Your task to perform on an android device: View the shopping cart on bestbuy.com. Image 0: 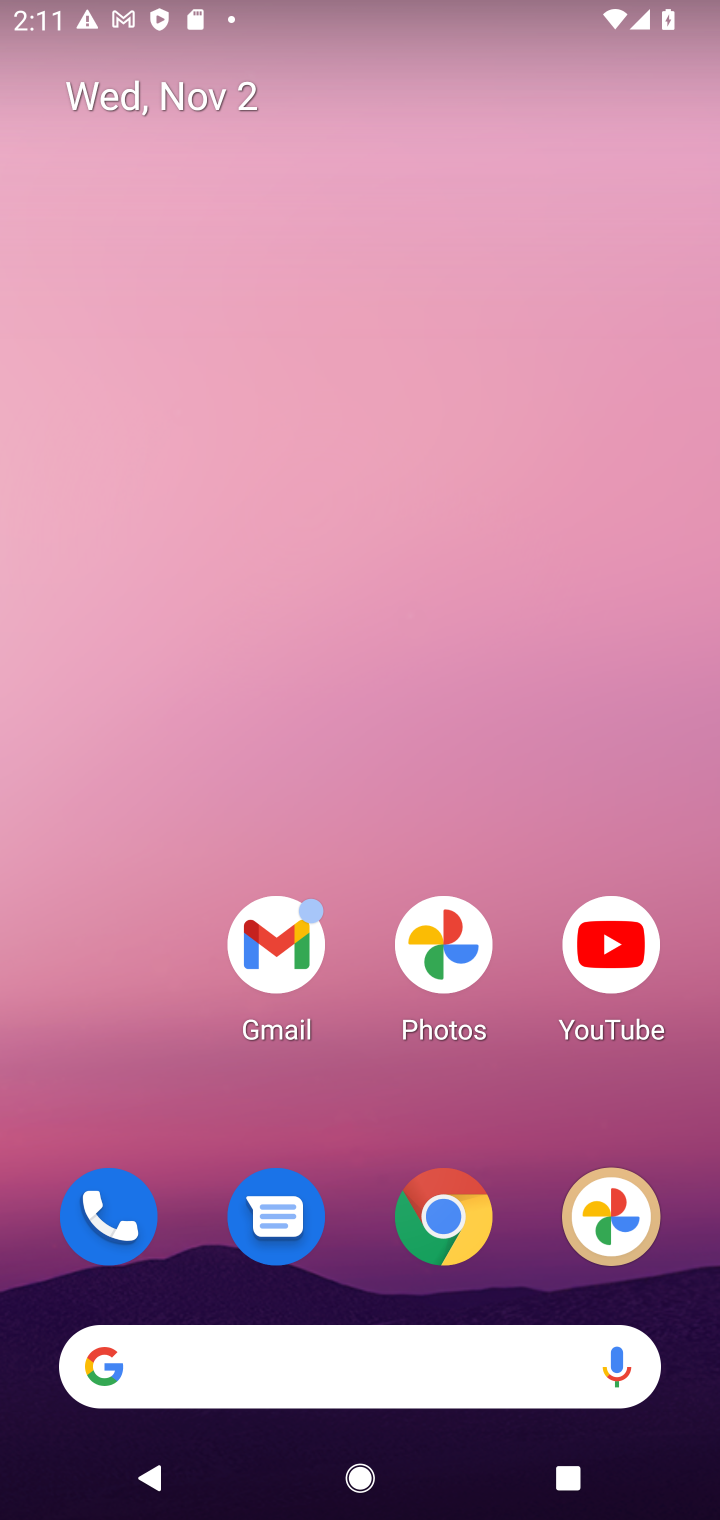
Step 0: click (444, 1211)
Your task to perform on an android device: View the shopping cart on bestbuy.com. Image 1: 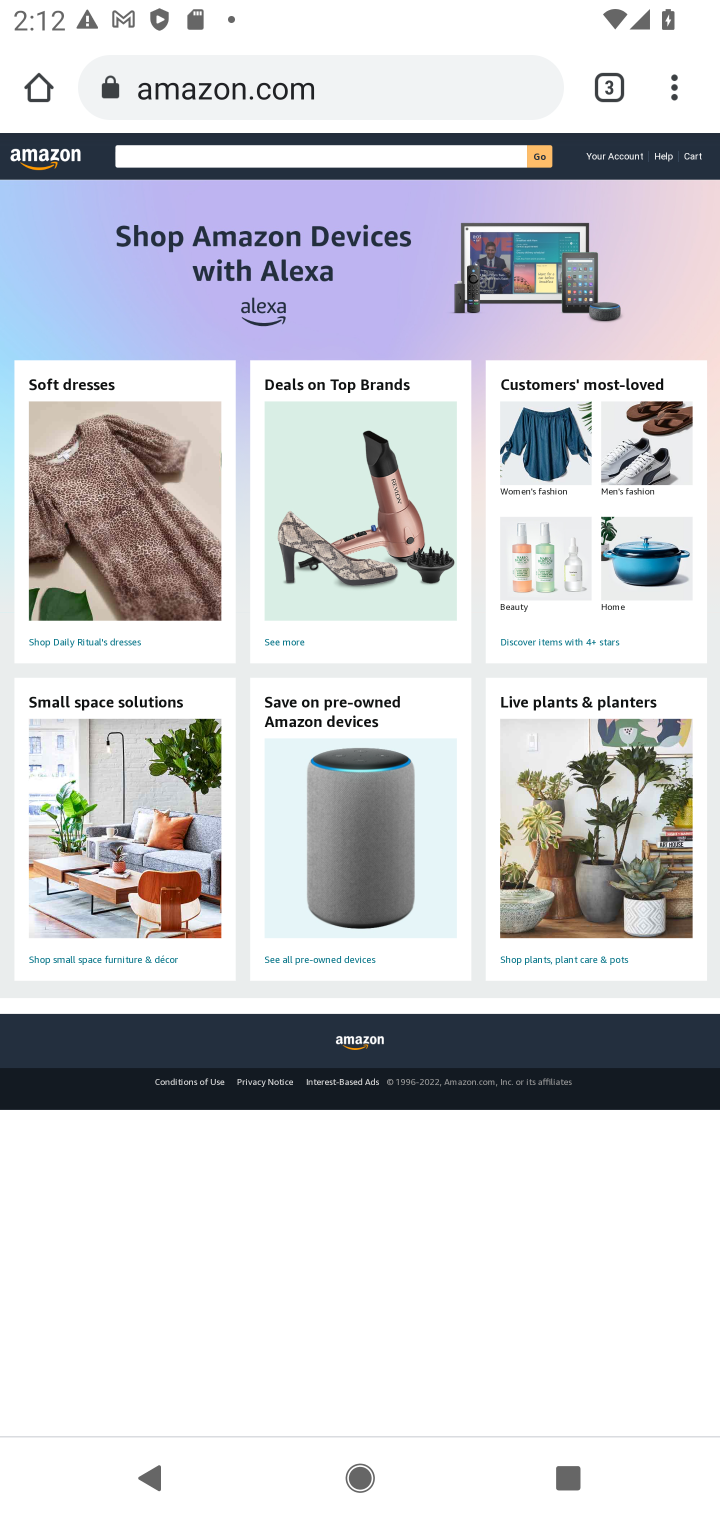
Step 1: click (608, 101)
Your task to perform on an android device: View the shopping cart on bestbuy.com. Image 2: 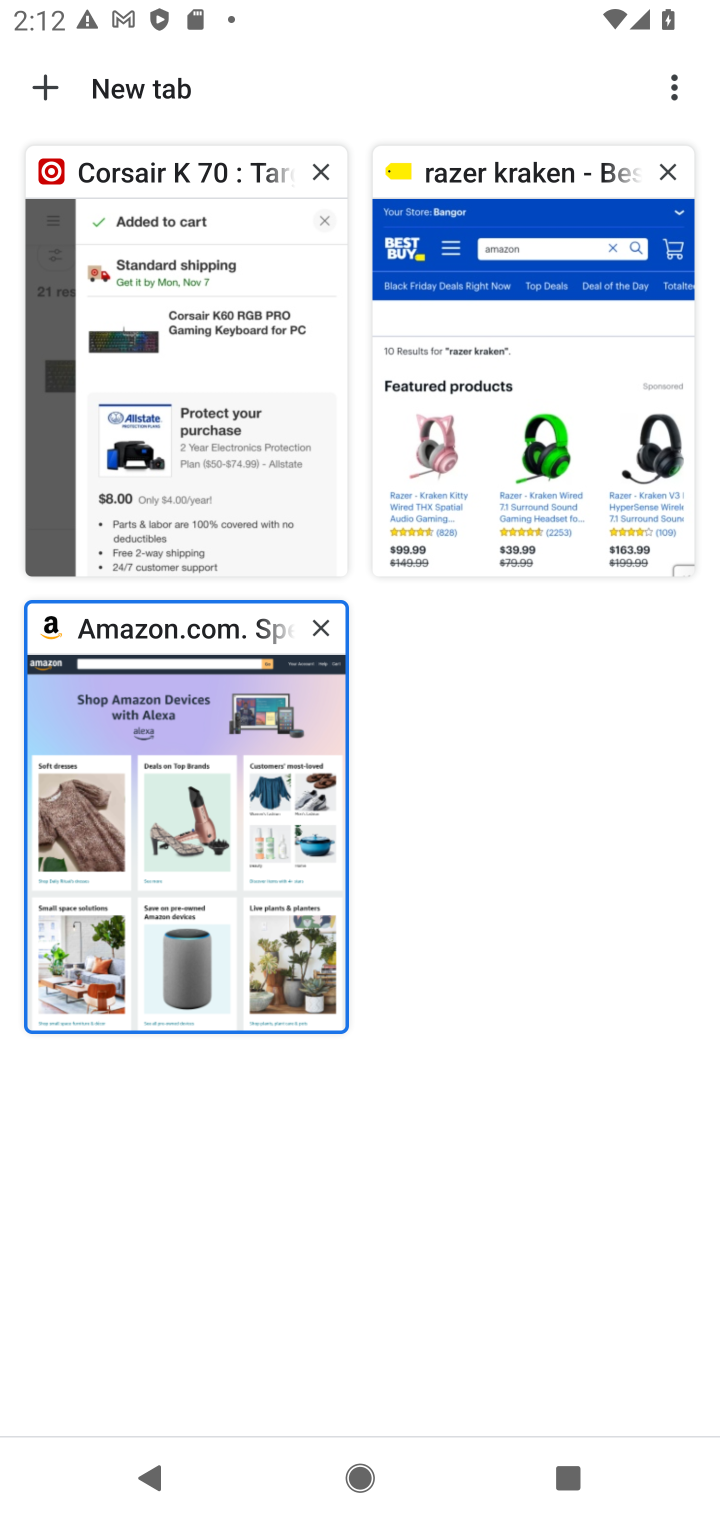
Step 2: click (318, 622)
Your task to perform on an android device: View the shopping cart on bestbuy.com. Image 3: 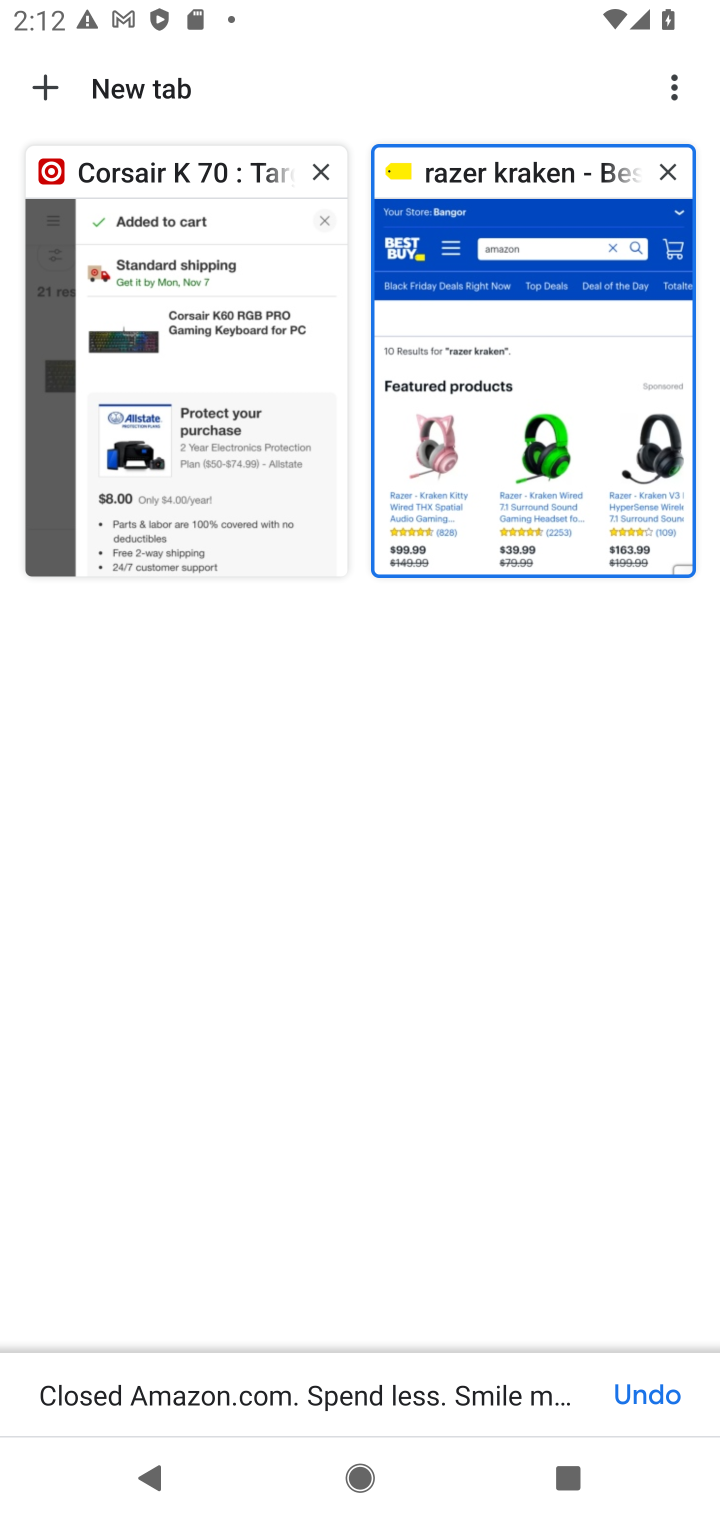
Step 3: click (567, 389)
Your task to perform on an android device: View the shopping cart on bestbuy.com. Image 4: 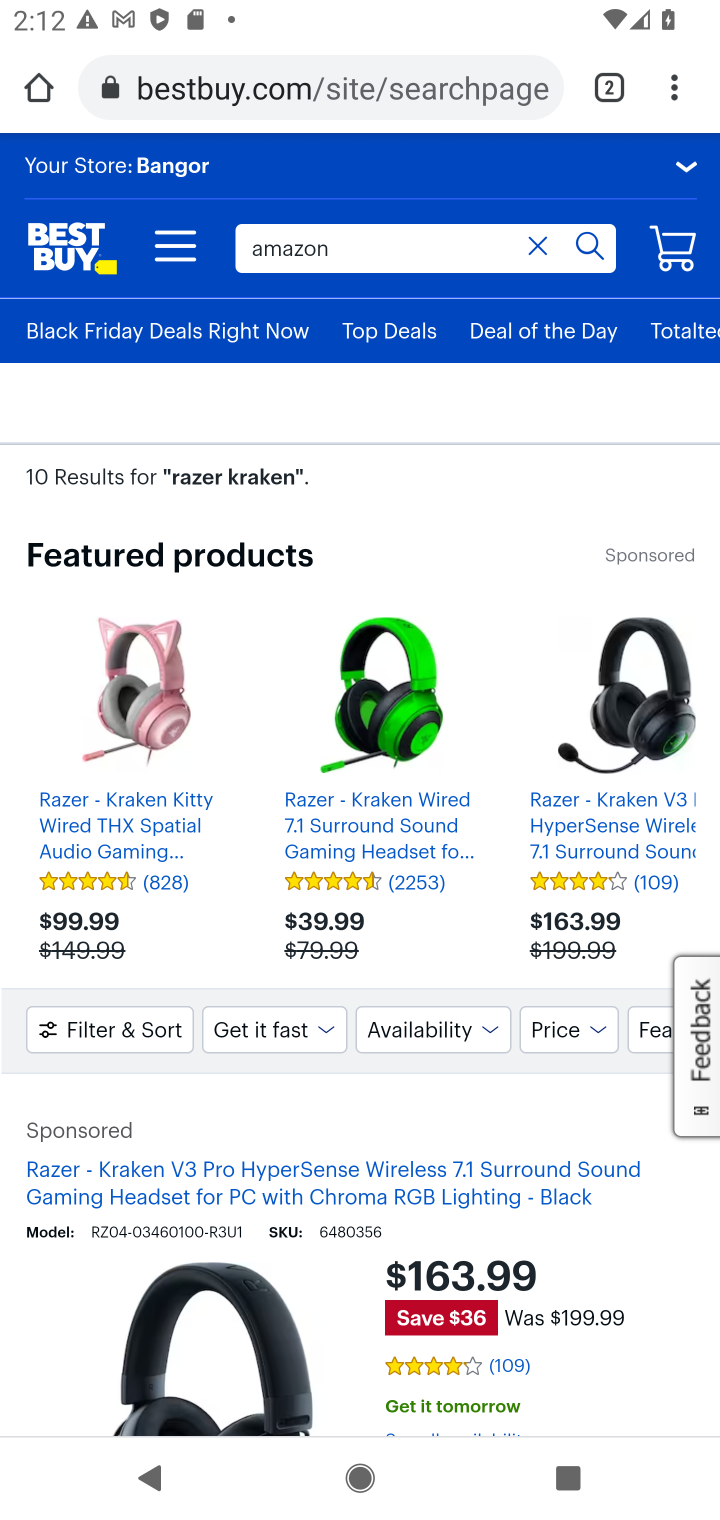
Step 4: click (681, 250)
Your task to perform on an android device: View the shopping cart on bestbuy.com. Image 5: 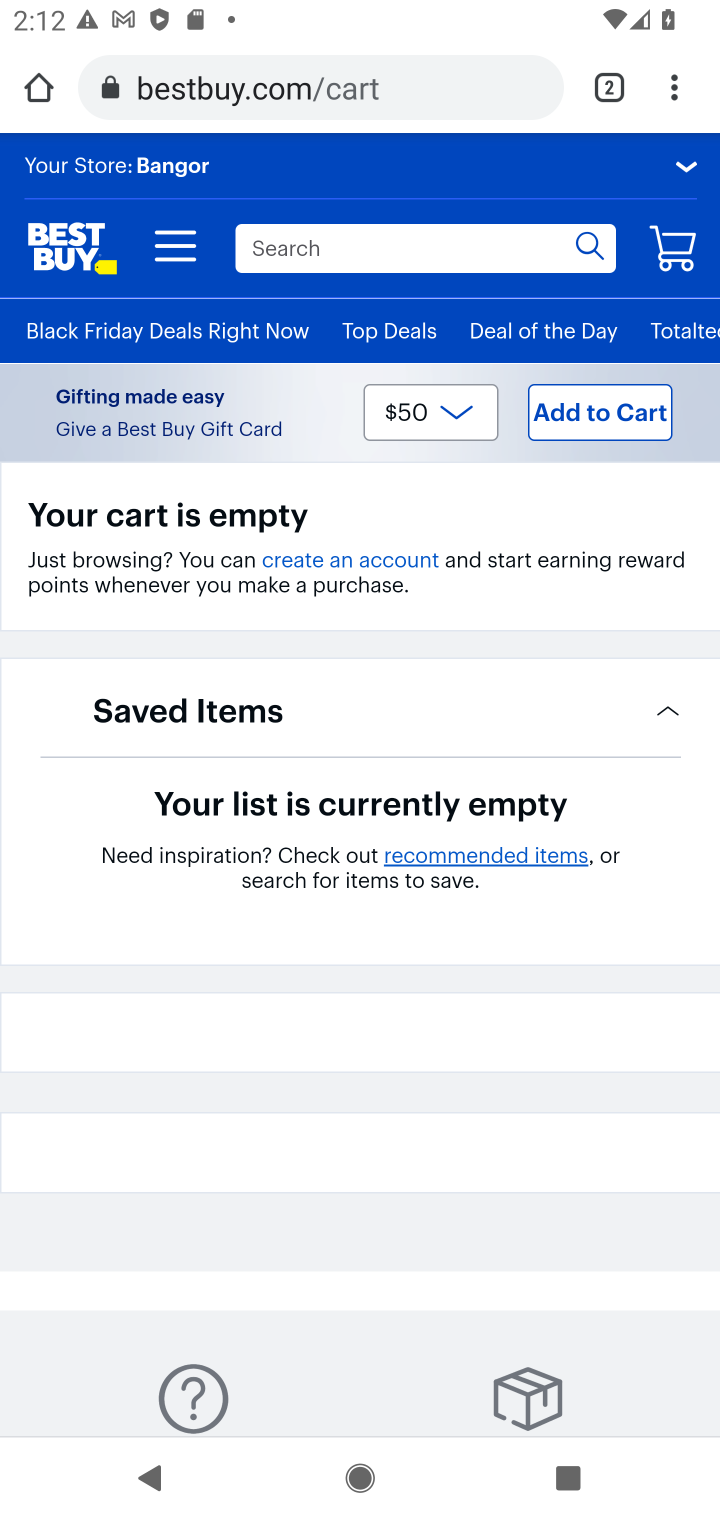
Step 5: task complete